Your task to perform on an android device: turn off improve location accuracy Image 0: 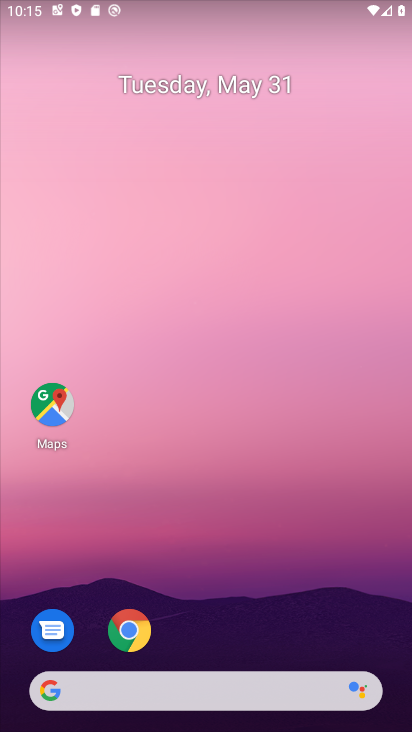
Step 0: drag from (179, 584) to (193, 124)
Your task to perform on an android device: turn off improve location accuracy Image 1: 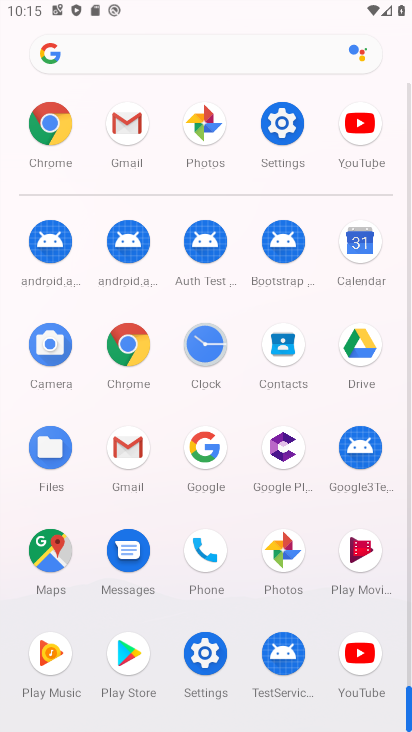
Step 1: click (275, 140)
Your task to perform on an android device: turn off improve location accuracy Image 2: 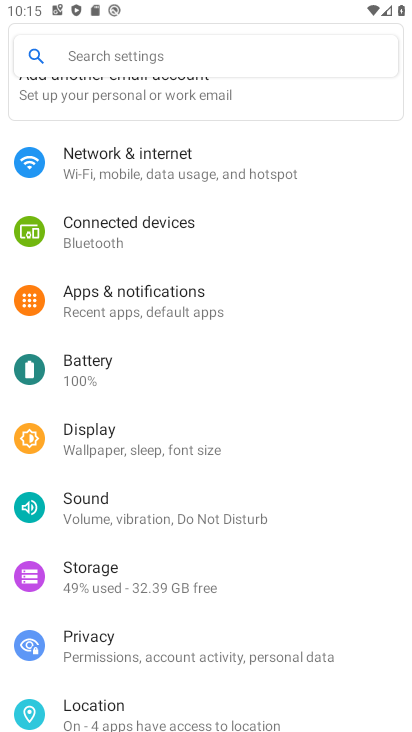
Step 2: drag from (170, 548) to (195, 350)
Your task to perform on an android device: turn off improve location accuracy Image 3: 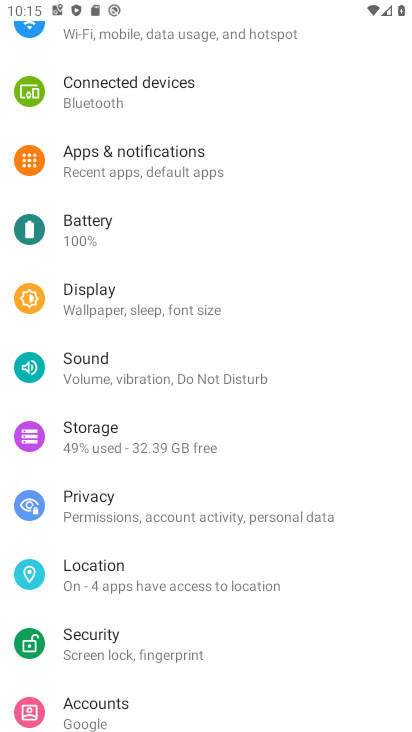
Step 3: click (196, 586)
Your task to perform on an android device: turn off improve location accuracy Image 4: 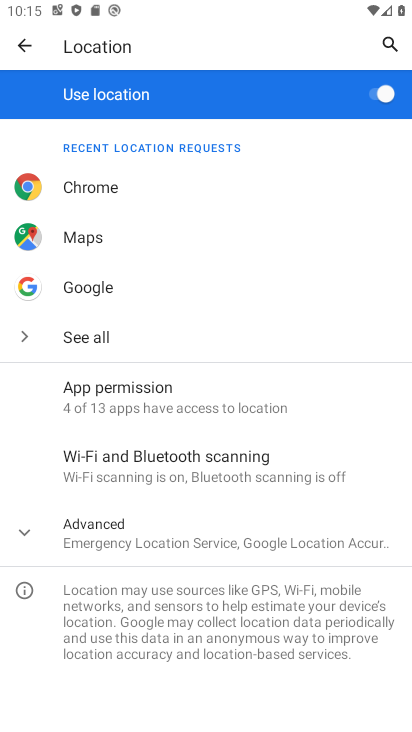
Step 4: click (338, 547)
Your task to perform on an android device: turn off improve location accuracy Image 5: 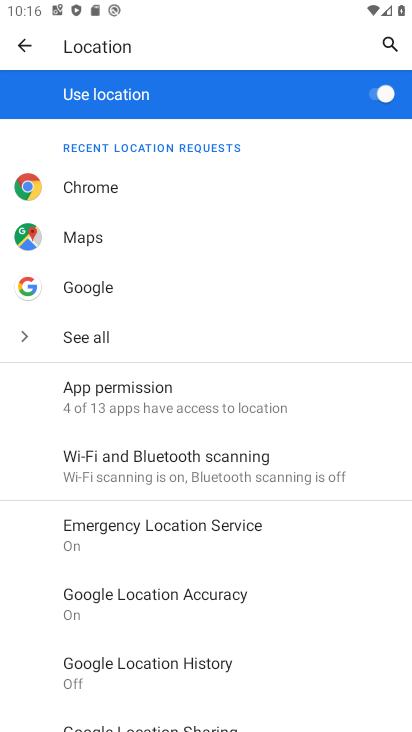
Step 5: click (196, 605)
Your task to perform on an android device: turn off improve location accuracy Image 6: 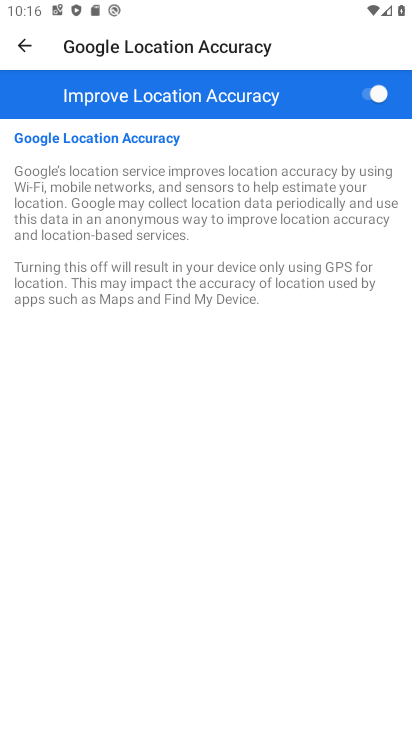
Step 6: click (368, 104)
Your task to perform on an android device: turn off improve location accuracy Image 7: 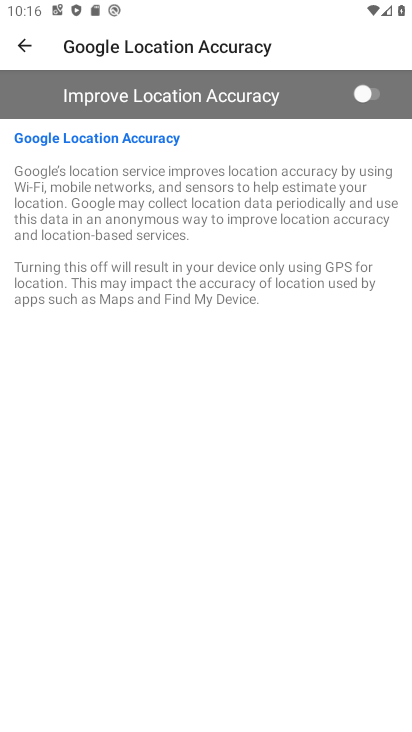
Step 7: task complete